Your task to perform on an android device: Go to privacy settings Image 0: 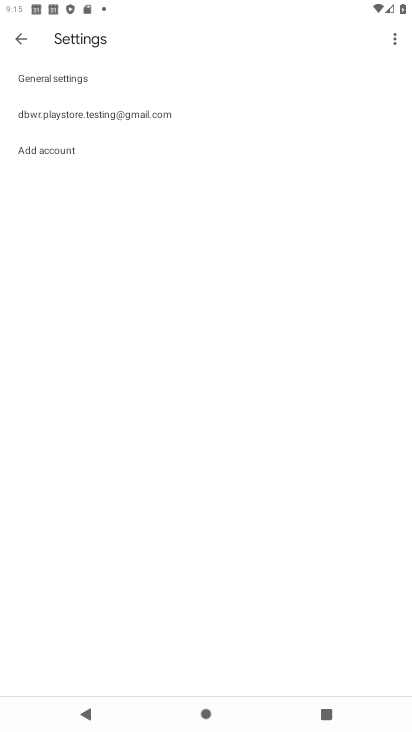
Step 0: press home button
Your task to perform on an android device: Go to privacy settings Image 1: 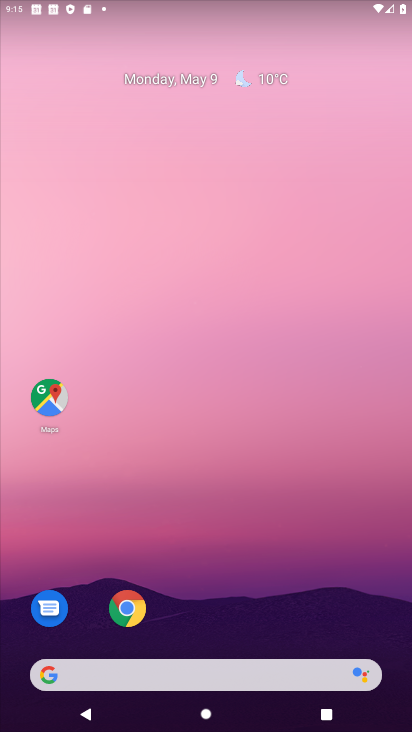
Step 1: drag from (356, 581) to (279, 103)
Your task to perform on an android device: Go to privacy settings Image 2: 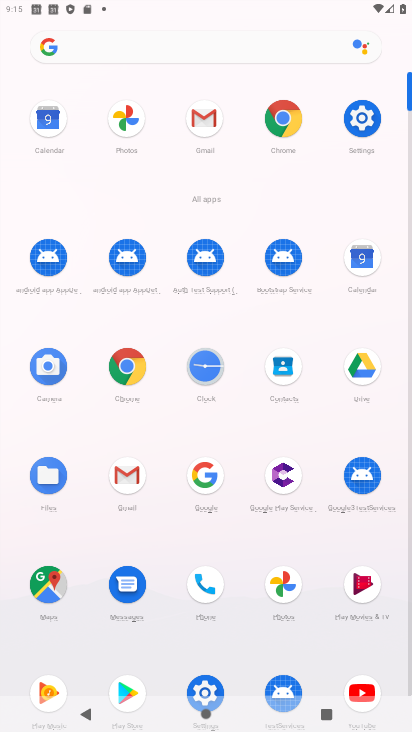
Step 2: click (361, 117)
Your task to perform on an android device: Go to privacy settings Image 3: 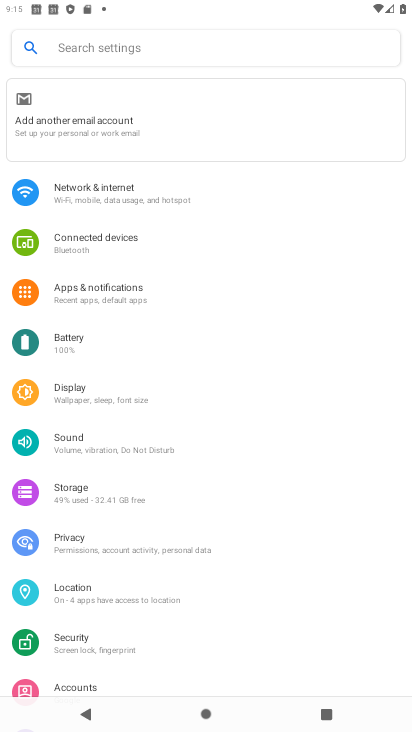
Step 3: click (111, 533)
Your task to perform on an android device: Go to privacy settings Image 4: 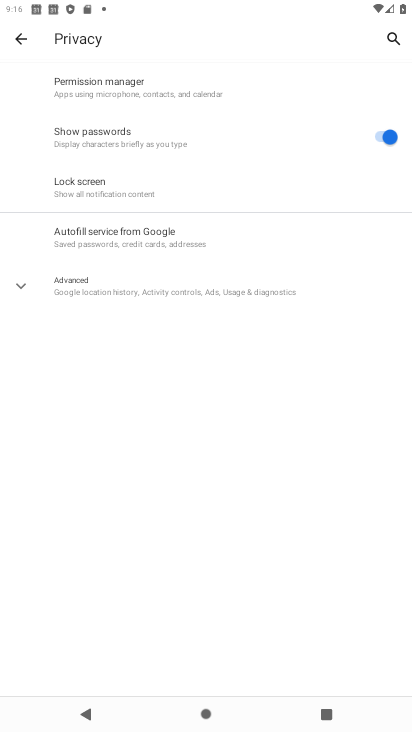
Step 4: task complete